Your task to perform on an android device: Open calendar and show me the fourth week of next month Image 0: 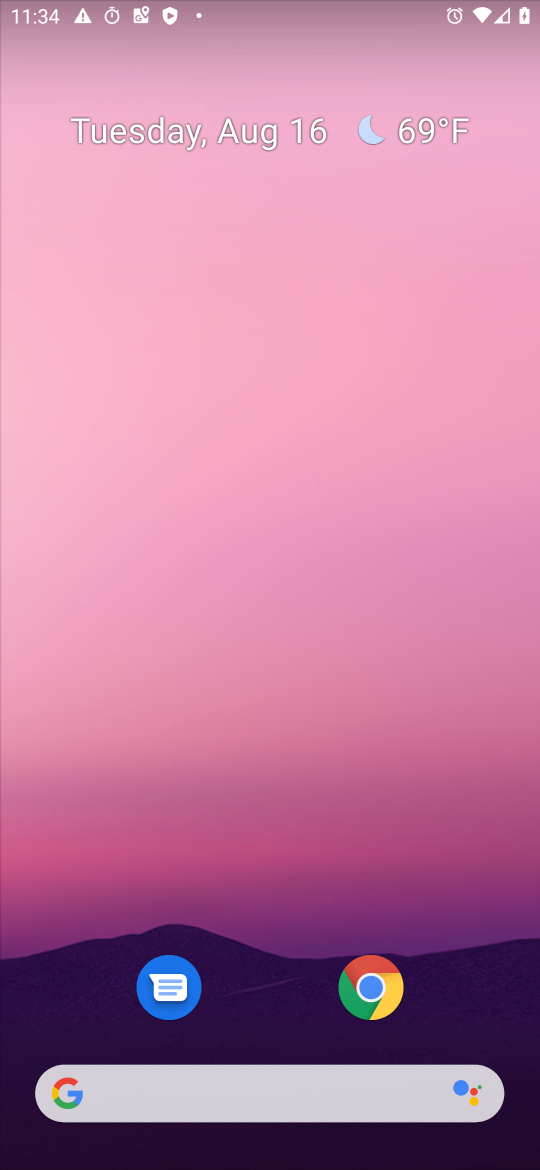
Step 0: drag from (47, 1123) to (194, 787)
Your task to perform on an android device: Open calendar and show me the fourth week of next month Image 1: 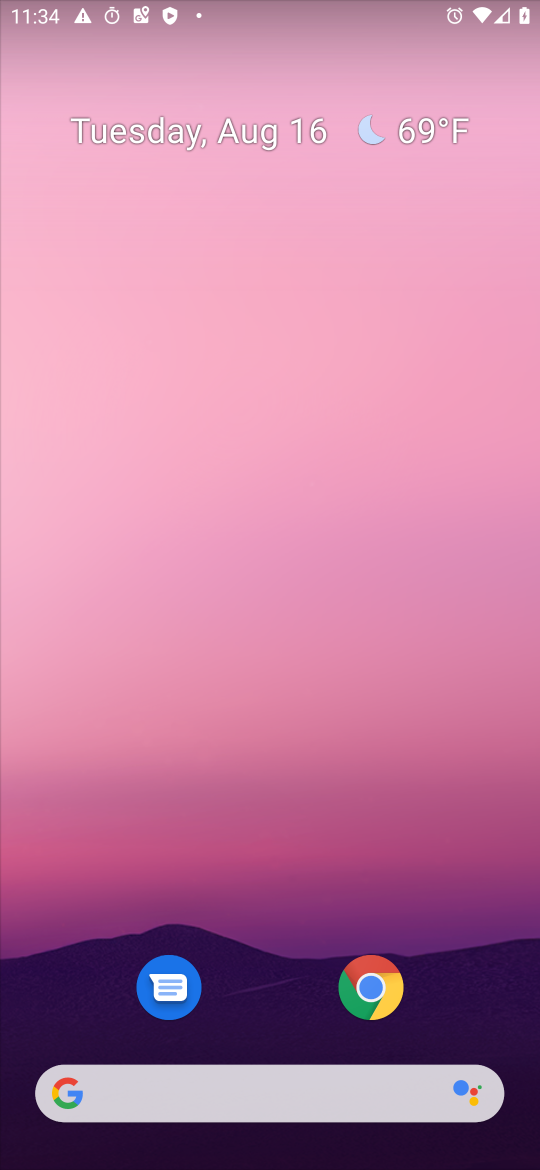
Step 1: drag from (24, 1118) to (217, 514)
Your task to perform on an android device: Open calendar and show me the fourth week of next month Image 2: 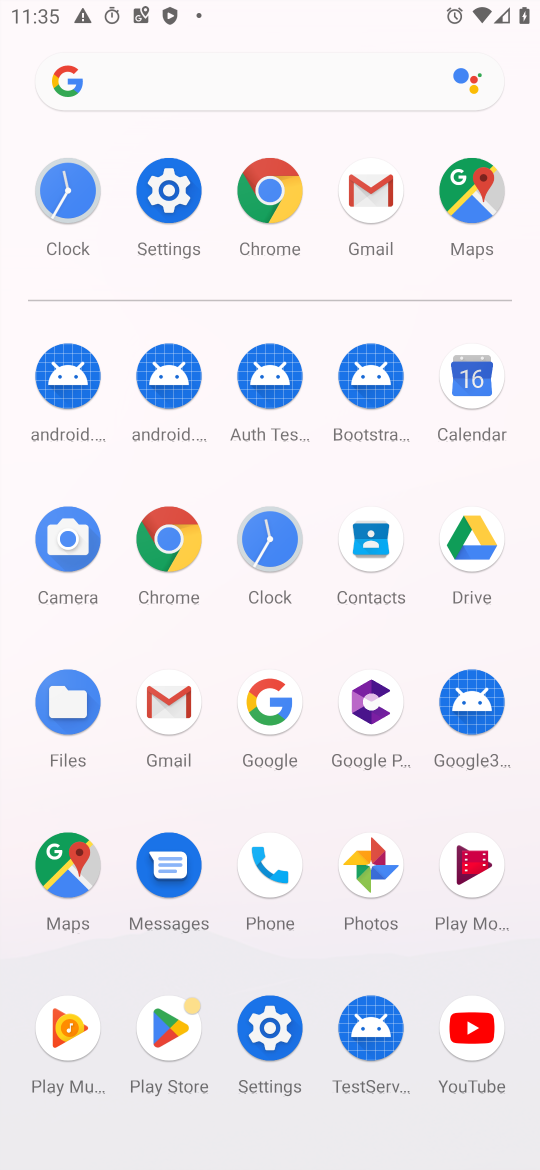
Step 2: click (483, 386)
Your task to perform on an android device: Open calendar and show me the fourth week of next month Image 3: 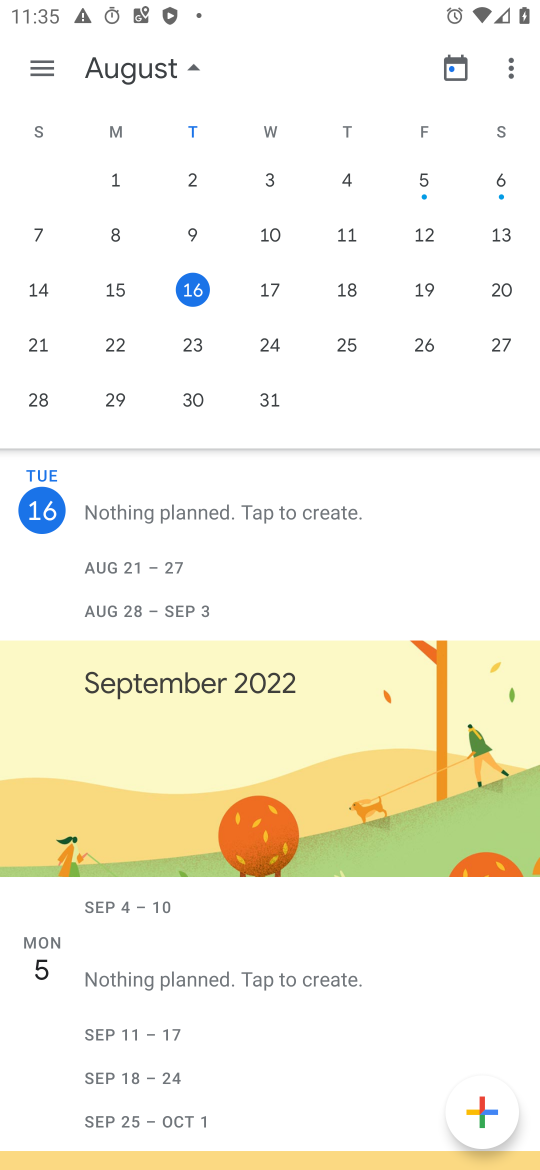
Step 3: drag from (517, 269) to (35, 243)
Your task to perform on an android device: Open calendar and show me the fourth week of next month Image 4: 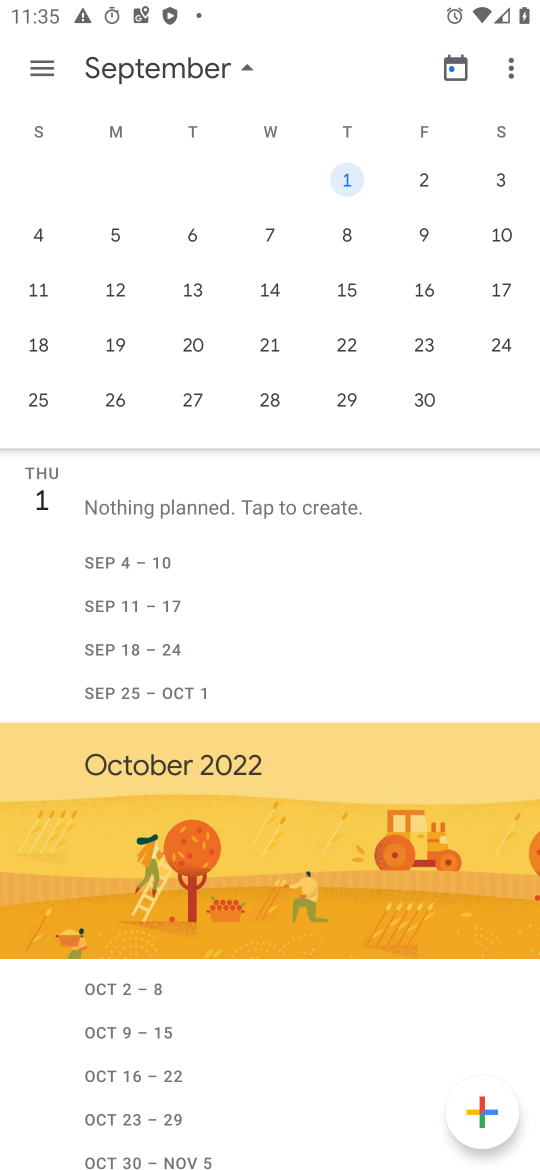
Step 4: click (120, 336)
Your task to perform on an android device: Open calendar and show me the fourth week of next month Image 5: 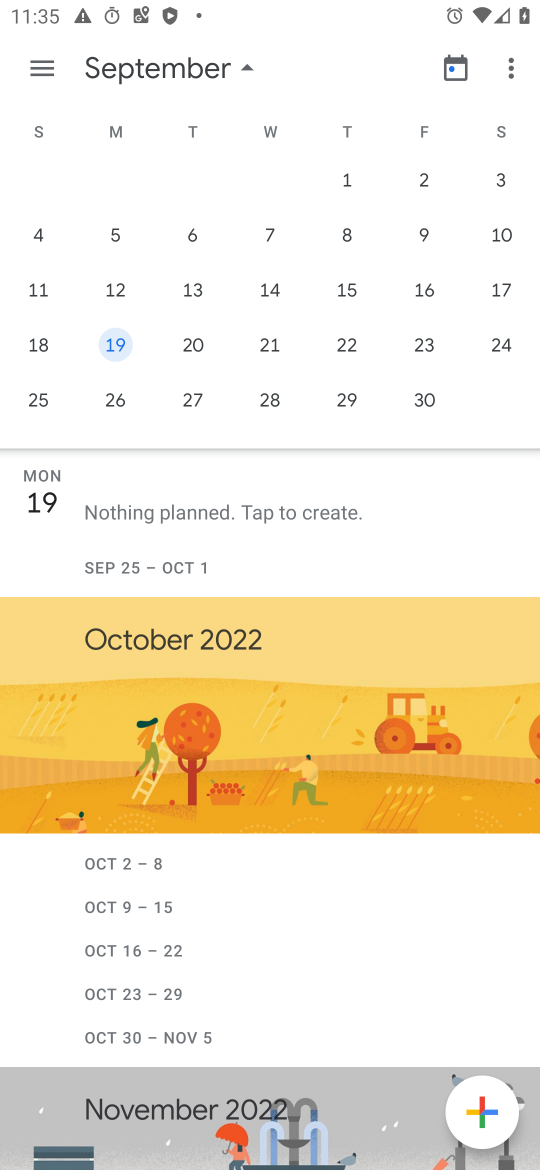
Step 5: task complete